Your task to perform on an android device: turn off notifications in google photos Image 0: 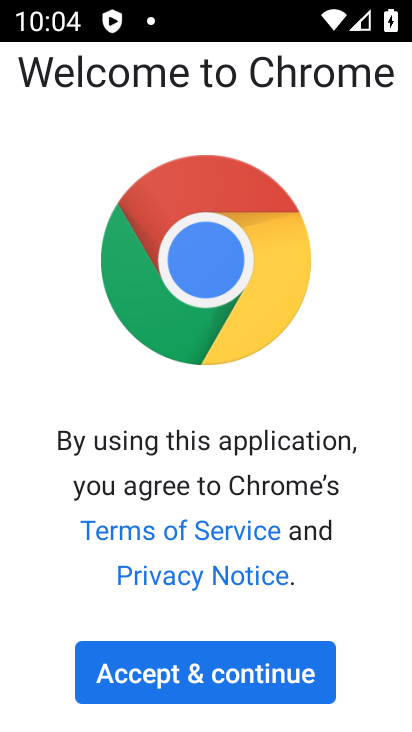
Step 0: press home button
Your task to perform on an android device: turn off notifications in google photos Image 1: 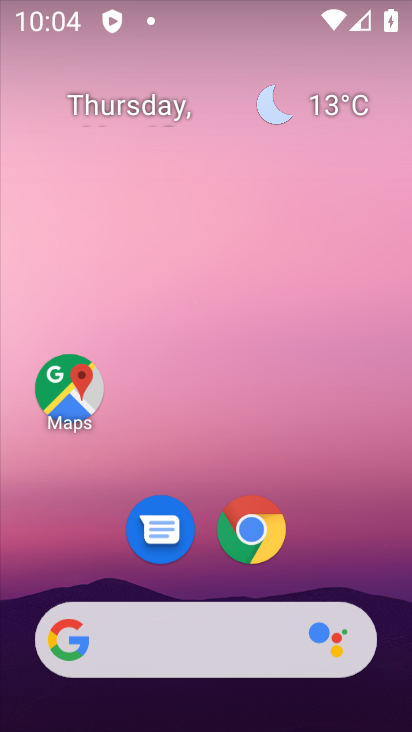
Step 1: drag from (345, 546) to (340, 117)
Your task to perform on an android device: turn off notifications in google photos Image 2: 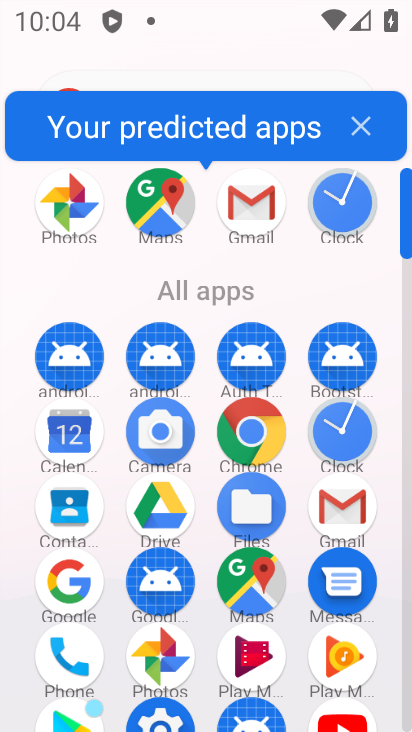
Step 2: click (162, 637)
Your task to perform on an android device: turn off notifications in google photos Image 3: 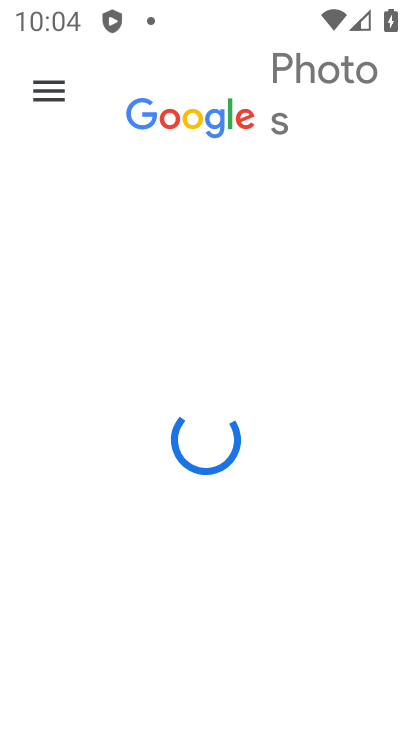
Step 3: click (58, 92)
Your task to perform on an android device: turn off notifications in google photos Image 4: 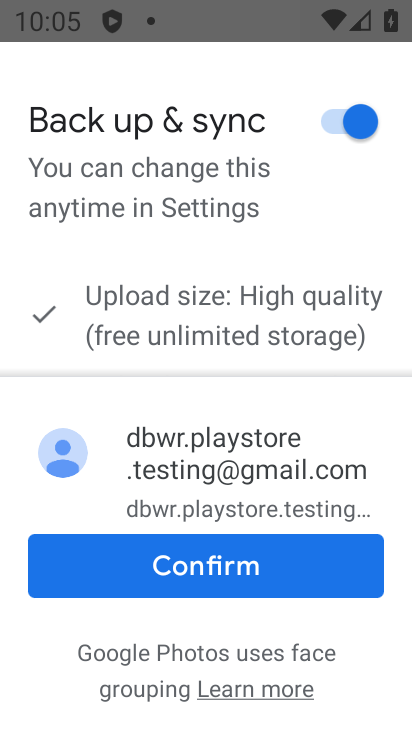
Step 4: click (287, 560)
Your task to perform on an android device: turn off notifications in google photos Image 5: 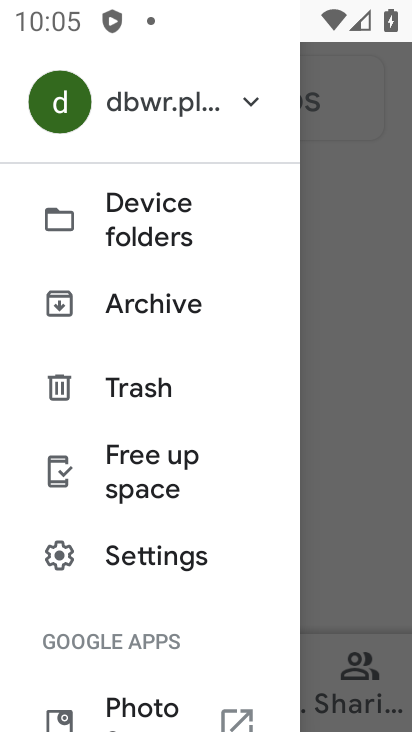
Step 5: click (137, 563)
Your task to perform on an android device: turn off notifications in google photos Image 6: 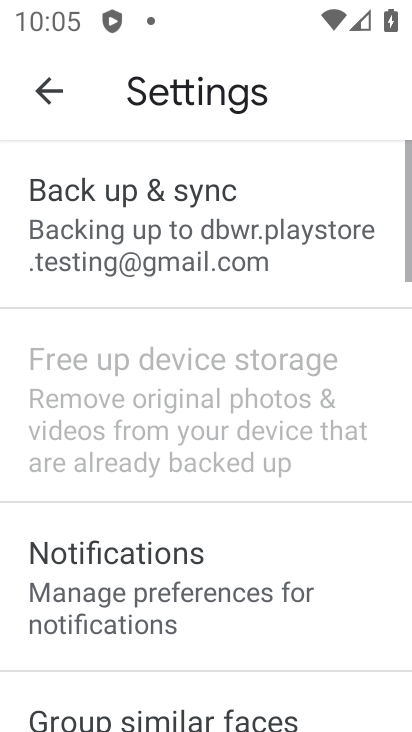
Step 6: drag from (137, 563) to (200, 174)
Your task to perform on an android device: turn off notifications in google photos Image 7: 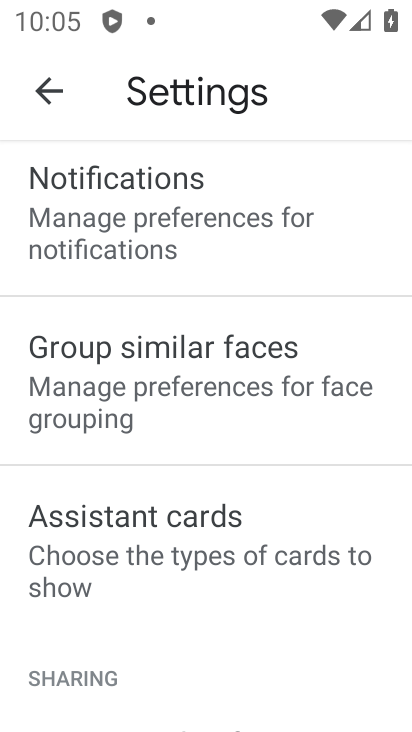
Step 7: click (207, 216)
Your task to perform on an android device: turn off notifications in google photos Image 8: 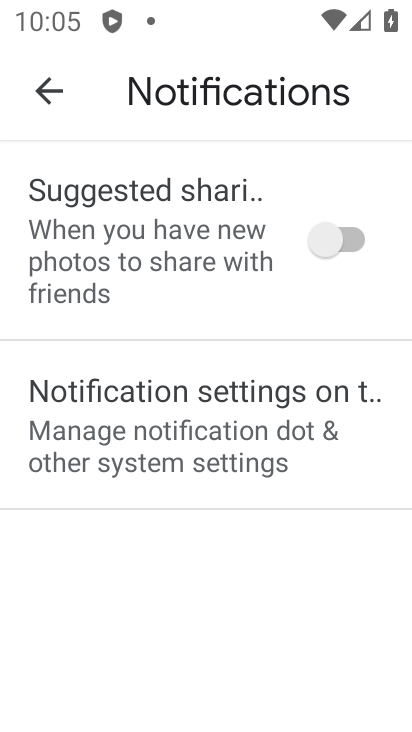
Step 8: click (196, 486)
Your task to perform on an android device: turn off notifications in google photos Image 9: 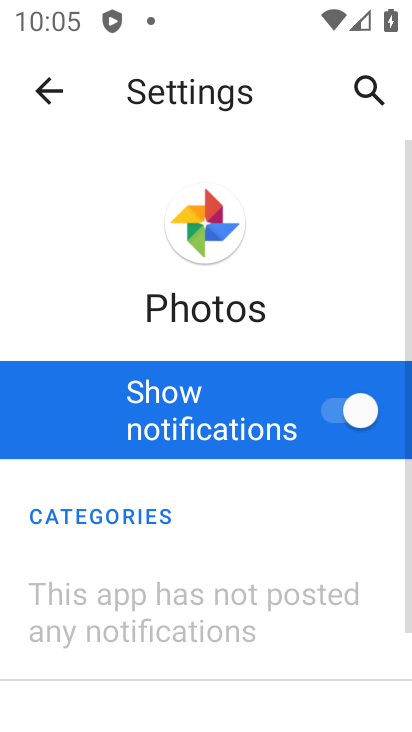
Step 9: click (363, 429)
Your task to perform on an android device: turn off notifications in google photos Image 10: 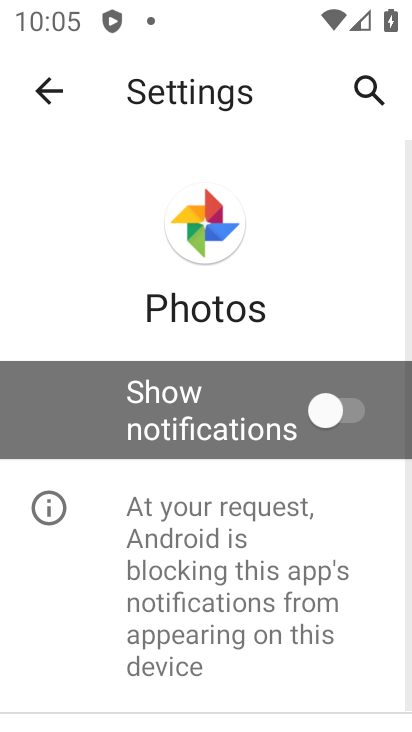
Step 10: task complete